Your task to perform on an android device: toggle improve location accuracy Image 0: 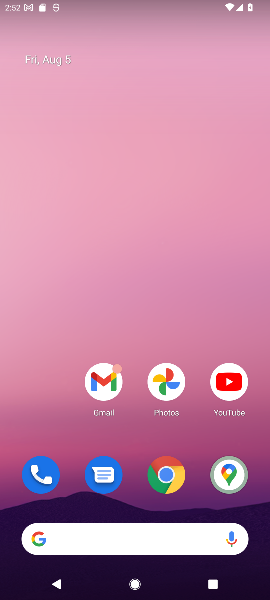
Step 0: drag from (234, 584) to (5, 204)
Your task to perform on an android device: toggle improve location accuracy Image 1: 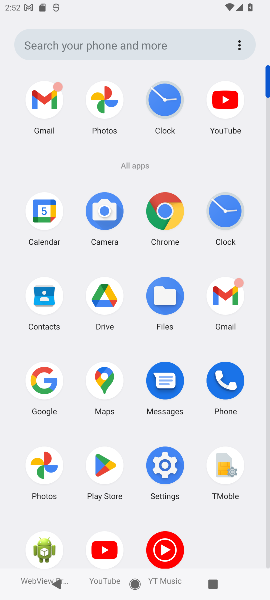
Step 1: click (152, 466)
Your task to perform on an android device: toggle improve location accuracy Image 2: 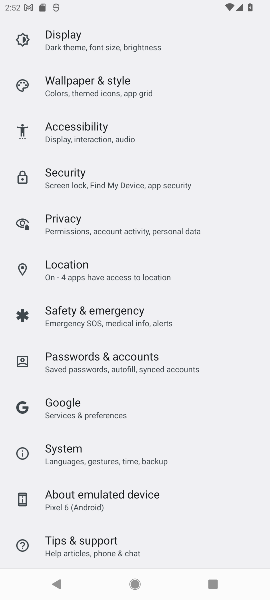
Step 2: click (79, 270)
Your task to perform on an android device: toggle improve location accuracy Image 3: 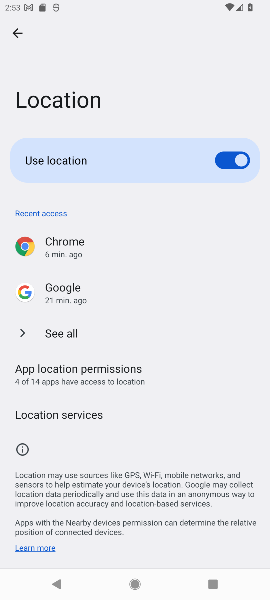
Step 3: drag from (145, 445) to (38, 236)
Your task to perform on an android device: toggle improve location accuracy Image 4: 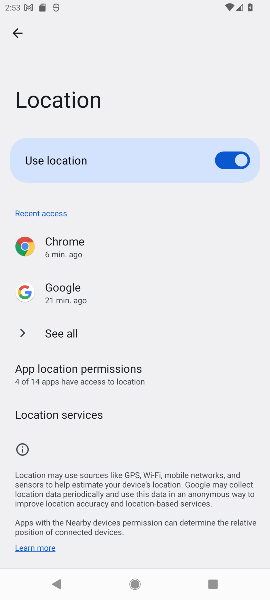
Step 4: click (27, 336)
Your task to perform on an android device: toggle improve location accuracy Image 5: 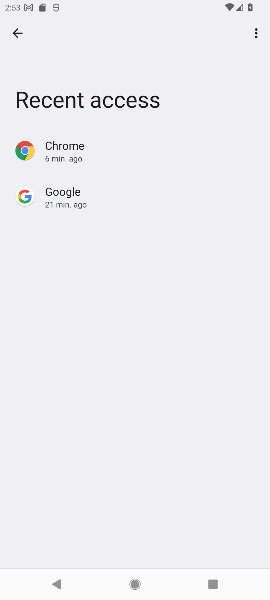
Step 5: task complete